Your task to perform on an android device: open sync settings in chrome Image 0: 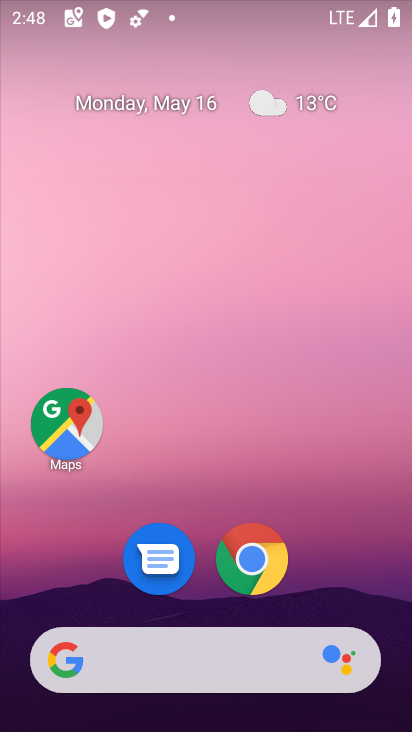
Step 0: click (247, 569)
Your task to perform on an android device: open sync settings in chrome Image 1: 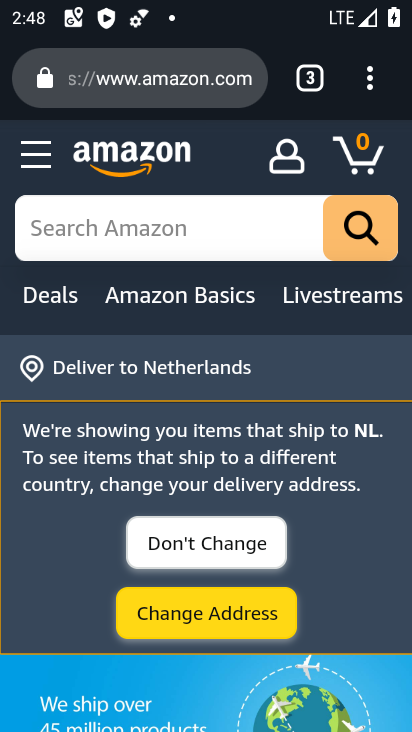
Step 1: drag from (362, 72) to (99, 607)
Your task to perform on an android device: open sync settings in chrome Image 2: 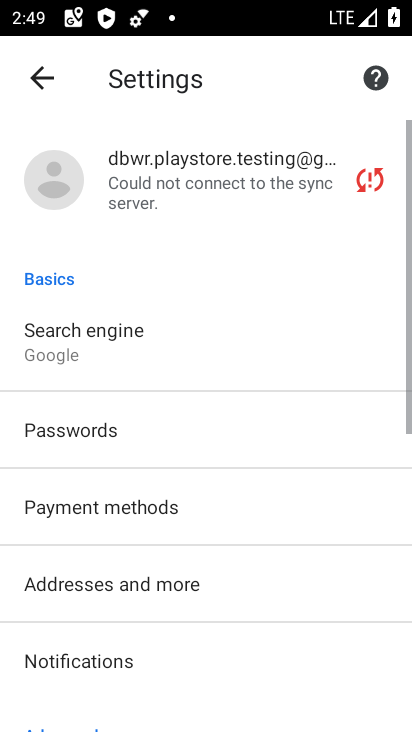
Step 2: click (171, 185)
Your task to perform on an android device: open sync settings in chrome Image 3: 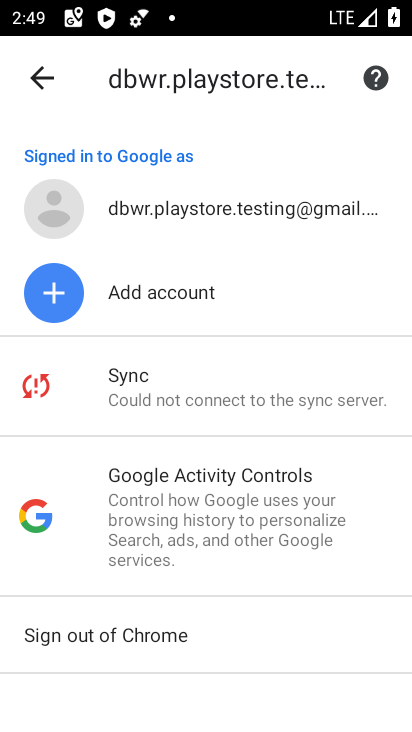
Step 3: task complete